Your task to perform on an android device: What's the news this month? Image 0: 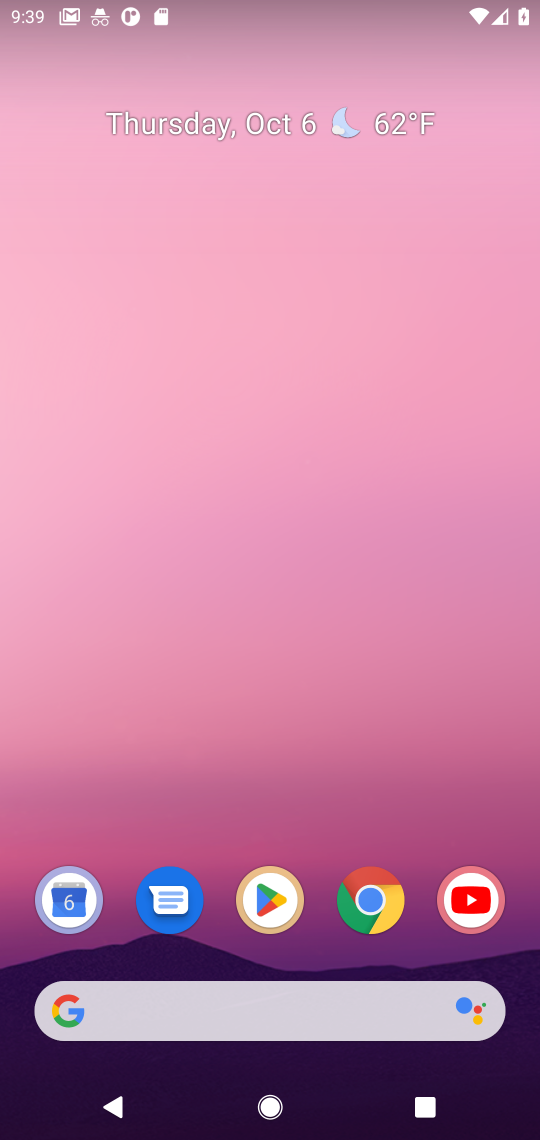
Step 0: press home button
Your task to perform on an android device: What's the news this month? Image 1: 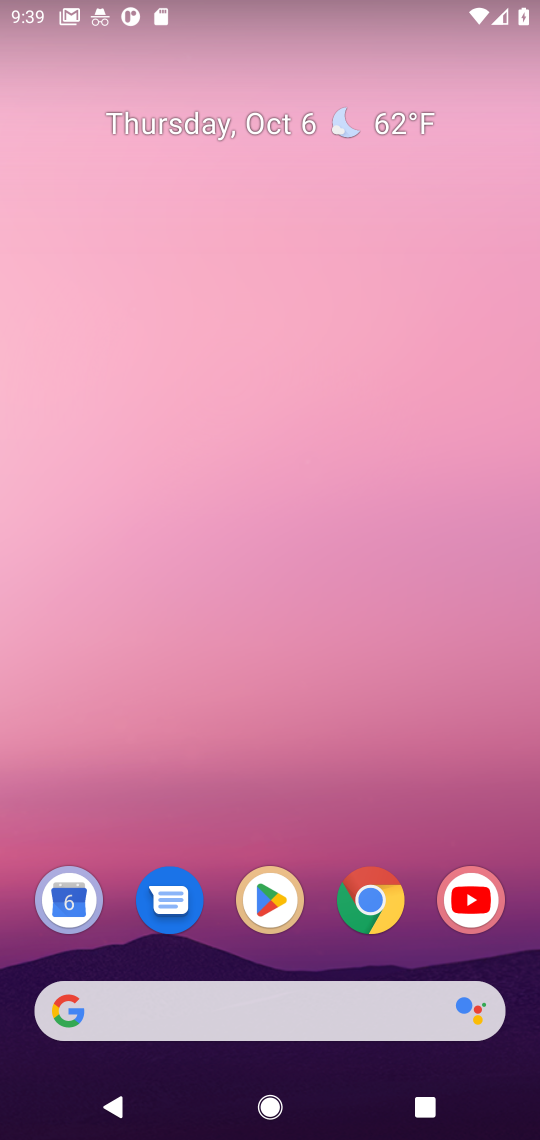
Step 1: click (337, 1011)
Your task to perform on an android device: What's the news this month? Image 2: 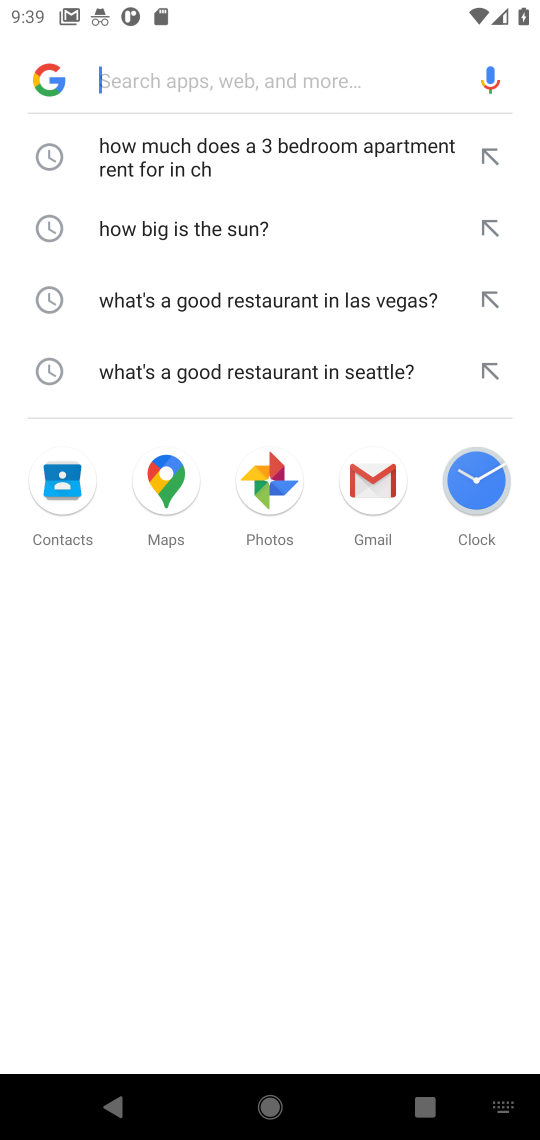
Step 2: type "What's the news this month?"
Your task to perform on an android device: What's the news this month? Image 3: 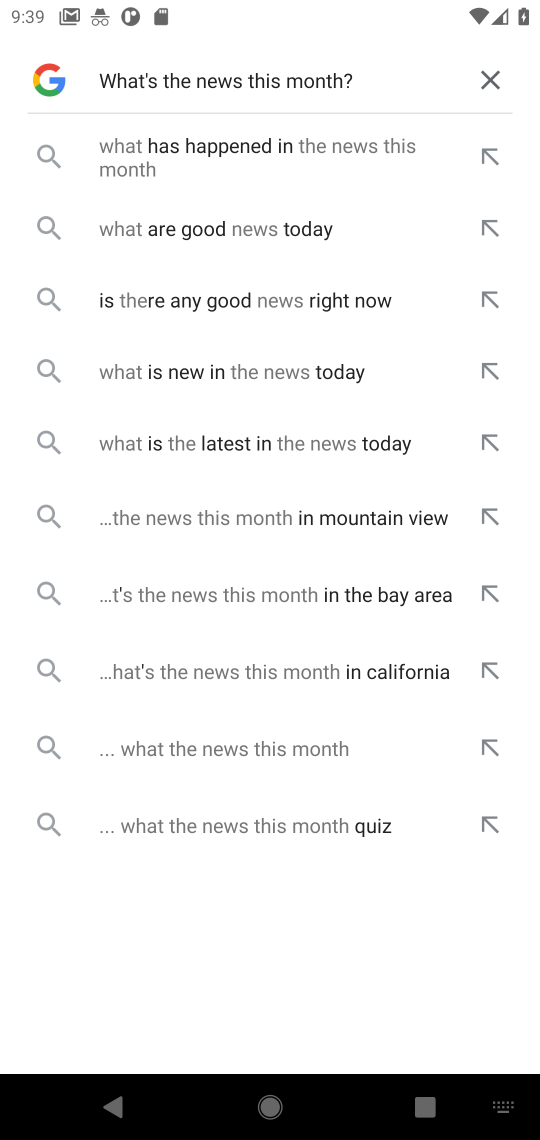
Step 3: press enter
Your task to perform on an android device: What's the news this month? Image 4: 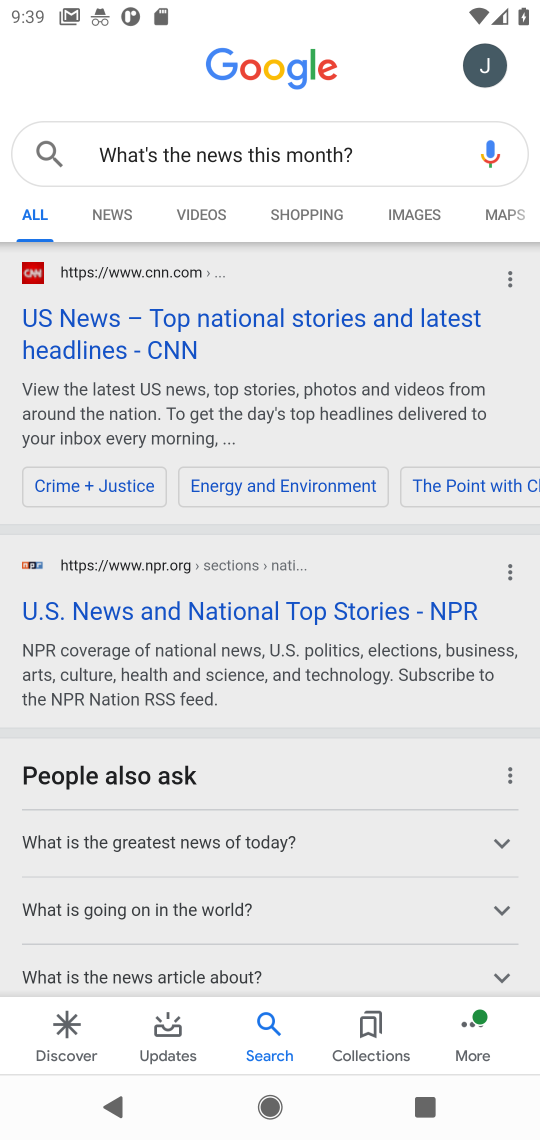
Step 4: click (376, 320)
Your task to perform on an android device: What's the news this month? Image 5: 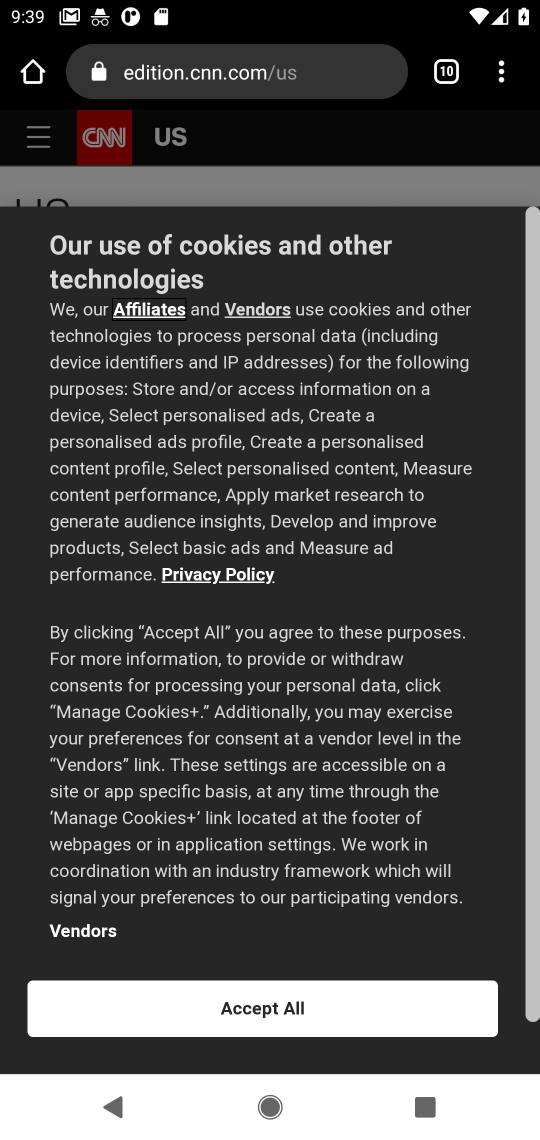
Step 5: click (318, 1010)
Your task to perform on an android device: What's the news this month? Image 6: 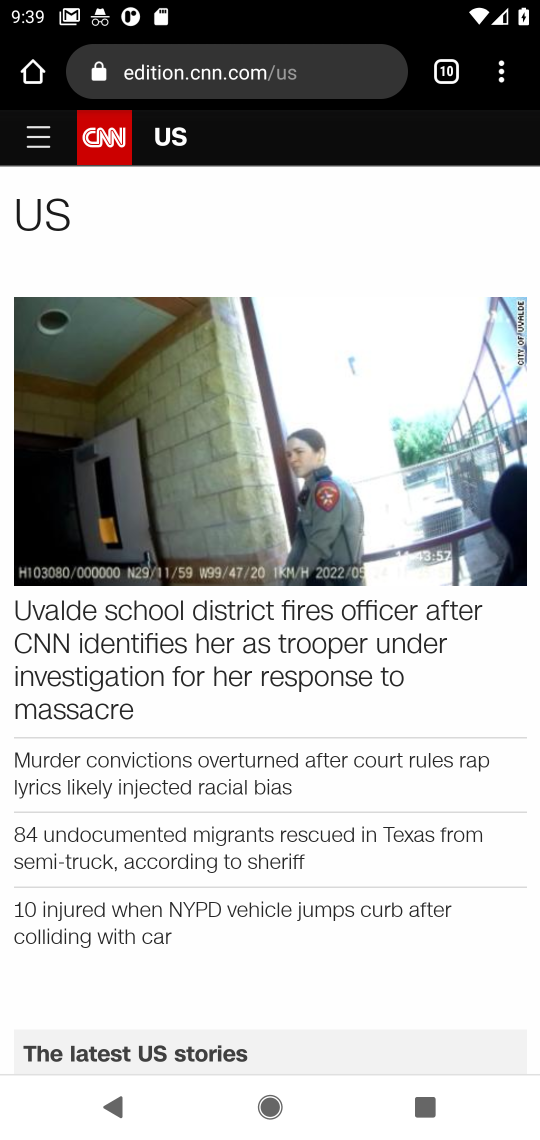
Step 6: task complete